Your task to perform on an android device: turn off notifications settings in the gmail app Image 0: 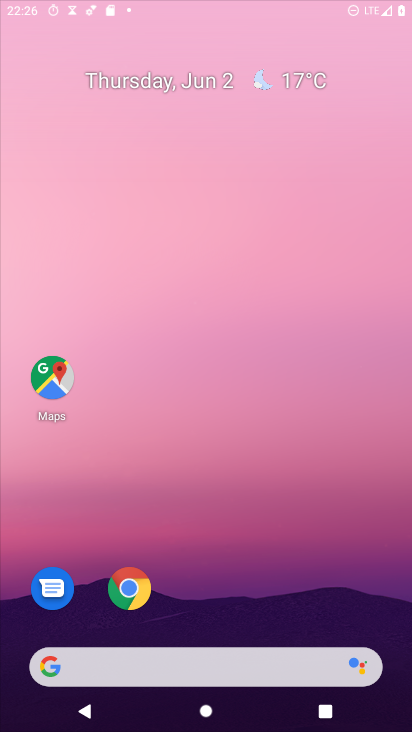
Step 0: click (291, 88)
Your task to perform on an android device: turn off notifications settings in the gmail app Image 1: 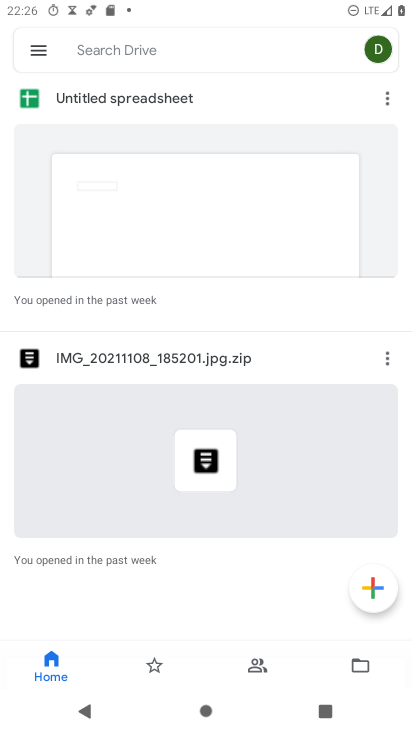
Step 1: press back button
Your task to perform on an android device: turn off notifications settings in the gmail app Image 2: 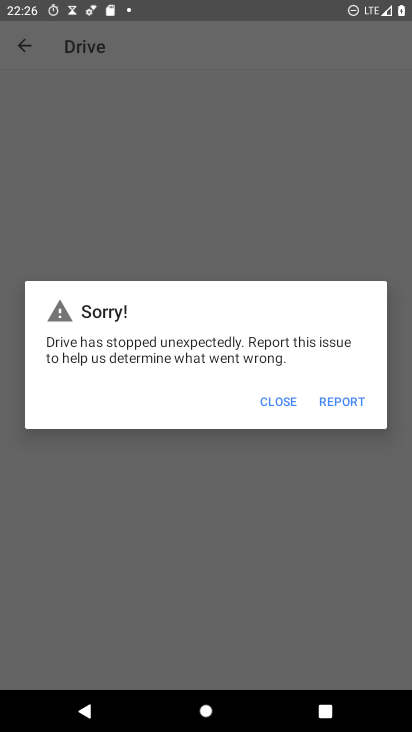
Step 2: press home button
Your task to perform on an android device: turn off notifications settings in the gmail app Image 3: 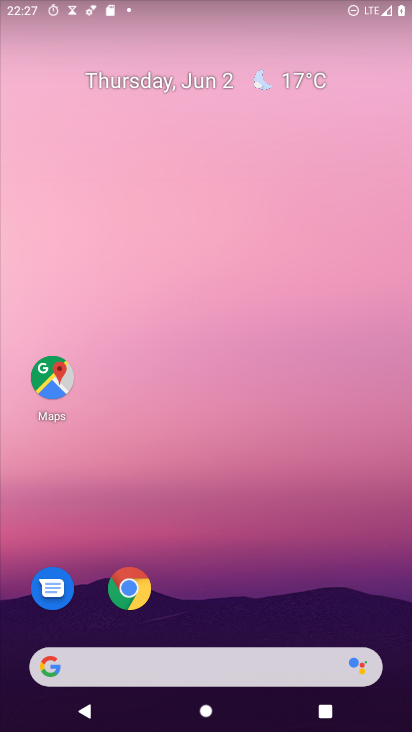
Step 3: drag from (205, 557) to (241, 40)
Your task to perform on an android device: turn off notifications settings in the gmail app Image 4: 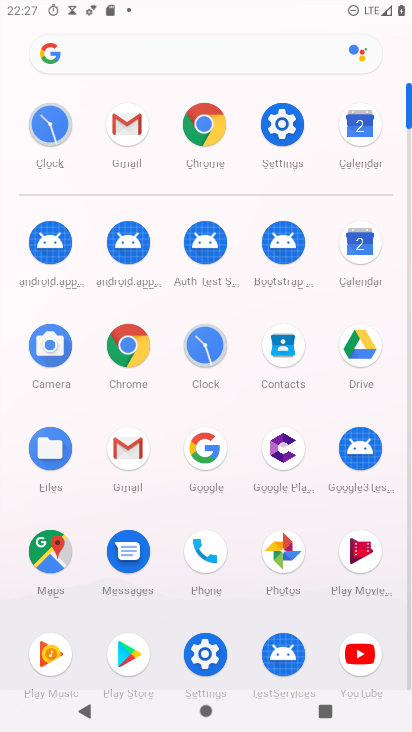
Step 4: click (132, 123)
Your task to perform on an android device: turn off notifications settings in the gmail app Image 5: 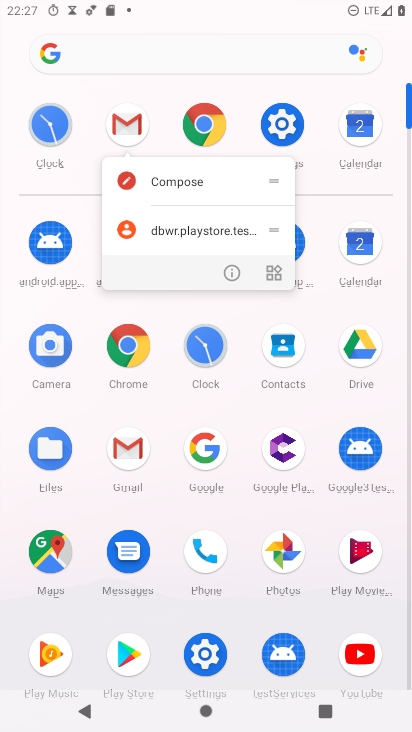
Step 5: click (229, 269)
Your task to perform on an android device: turn off notifications settings in the gmail app Image 6: 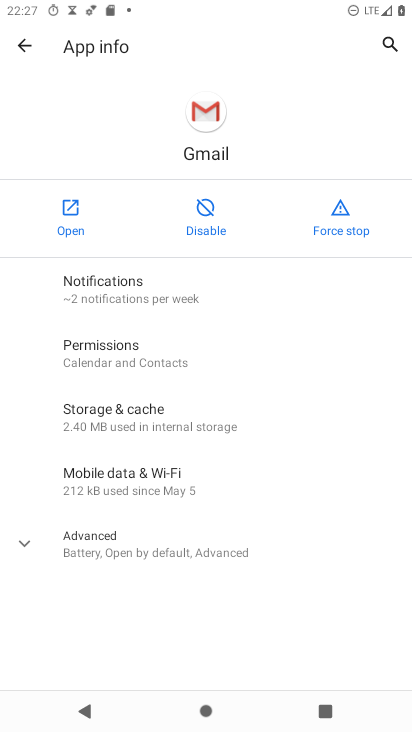
Step 6: click (156, 296)
Your task to perform on an android device: turn off notifications settings in the gmail app Image 7: 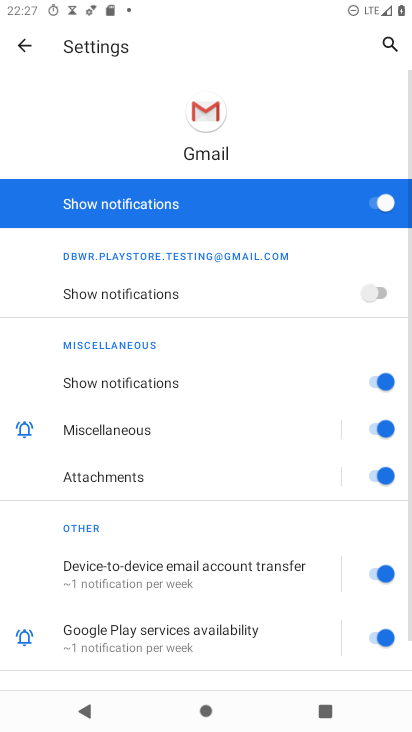
Step 7: click (374, 197)
Your task to perform on an android device: turn off notifications settings in the gmail app Image 8: 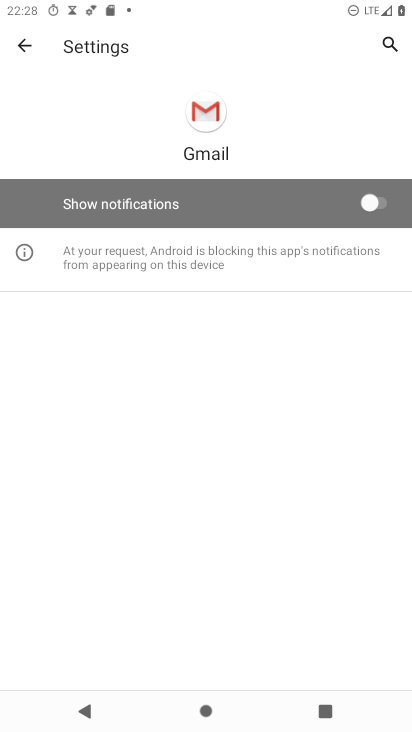
Step 8: task complete